Your task to perform on an android device: turn off smart reply in the gmail app Image 0: 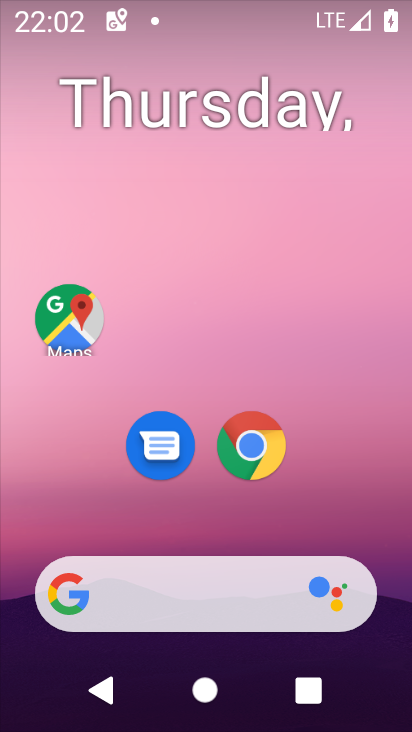
Step 0: drag from (256, 535) to (283, 201)
Your task to perform on an android device: turn off smart reply in the gmail app Image 1: 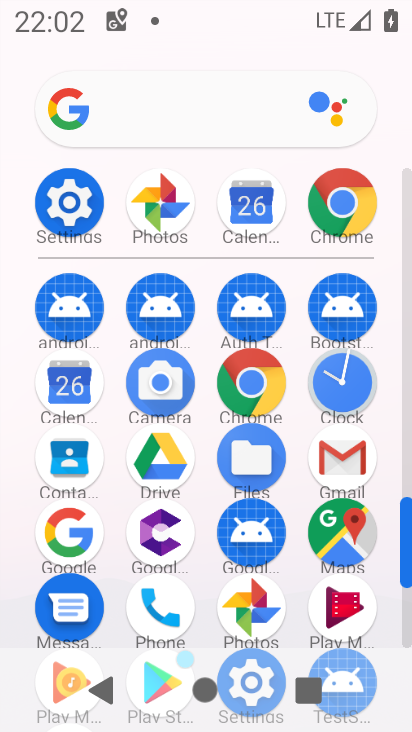
Step 1: click (331, 468)
Your task to perform on an android device: turn off smart reply in the gmail app Image 2: 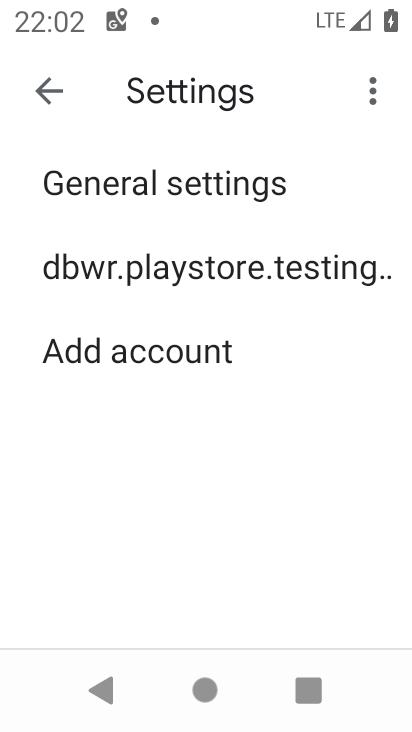
Step 2: click (112, 681)
Your task to perform on an android device: turn off smart reply in the gmail app Image 3: 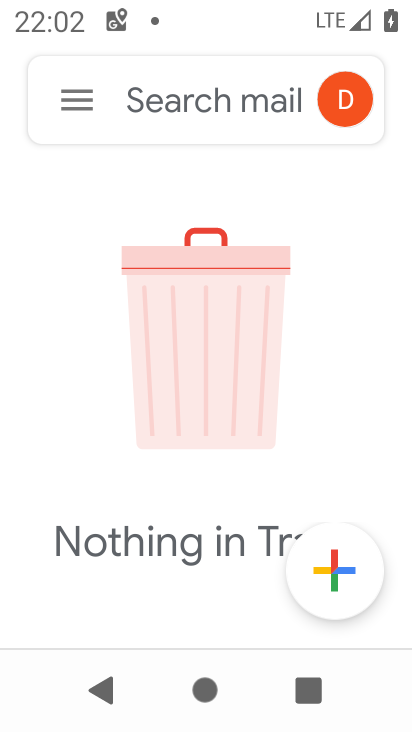
Step 3: click (63, 101)
Your task to perform on an android device: turn off smart reply in the gmail app Image 4: 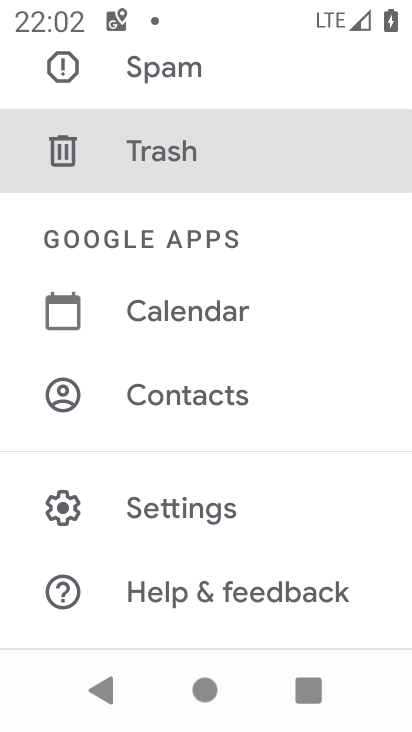
Step 4: drag from (127, 515) to (136, 347)
Your task to perform on an android device: turn off smart reply in the gmail app Image 5: 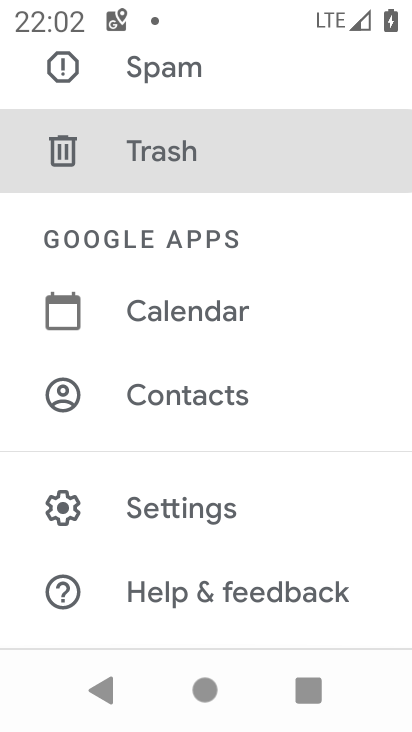
Step 5: click (149, 523)
Your task to perform on an android device: turn off smart reply in the gmail app Image 6: 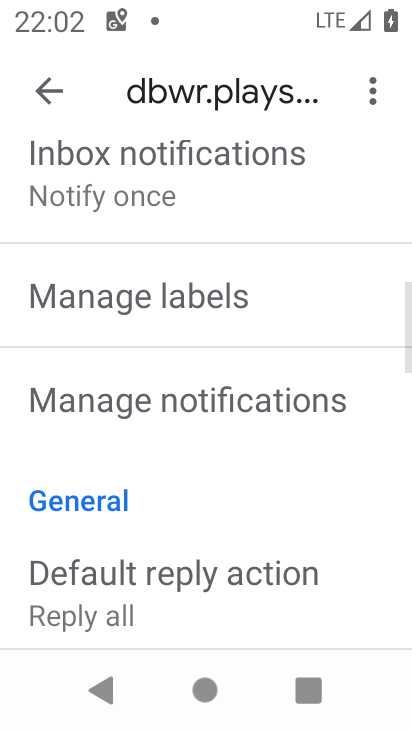
Step 6: drag from (203, 501) to (253, 119)
Your task to perform on an android device: turn off smart reply in the gmail app Image 7: 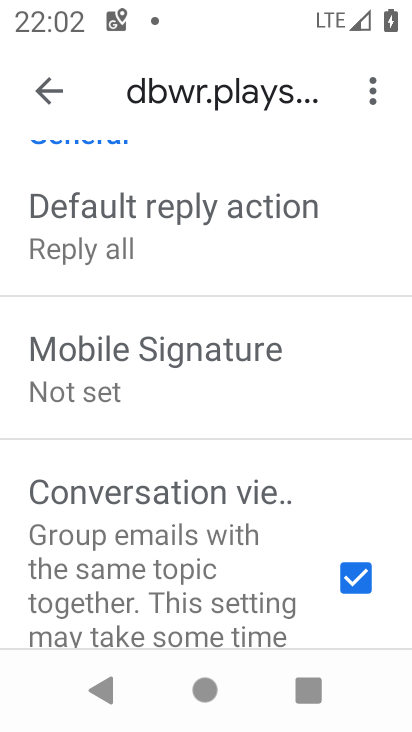
Step 7: drag from (271, 485) to (241, 119)
Your task to perform on an android device: turn off smart reply in the gmail app Image 8: 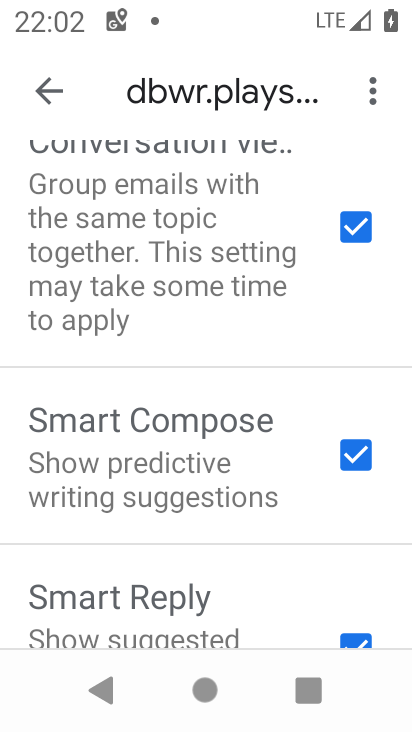
Step 8: drag from (245, 593) to (204, 215)
Your task to perform on an android device: turn off smart reply in the gmail app Image 9: 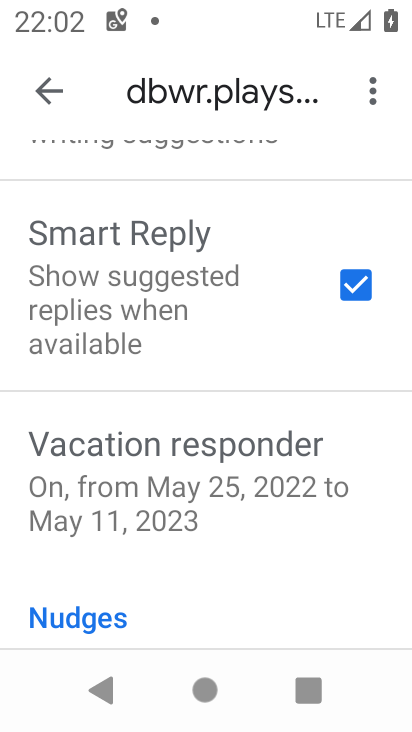
Step 9: click (349, 290)
Your task to perform on an android device: turn off smart reply in the gmail app Image 10: 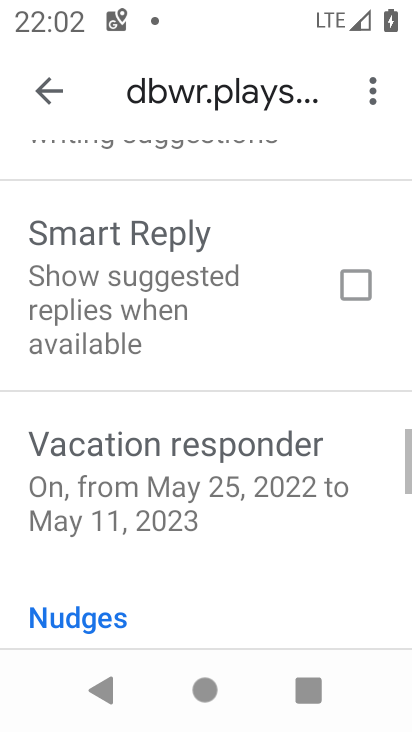
Step 10: task complete